Your task to perform on an android device: Open calendar and show me the fourth week of next month Image 0: 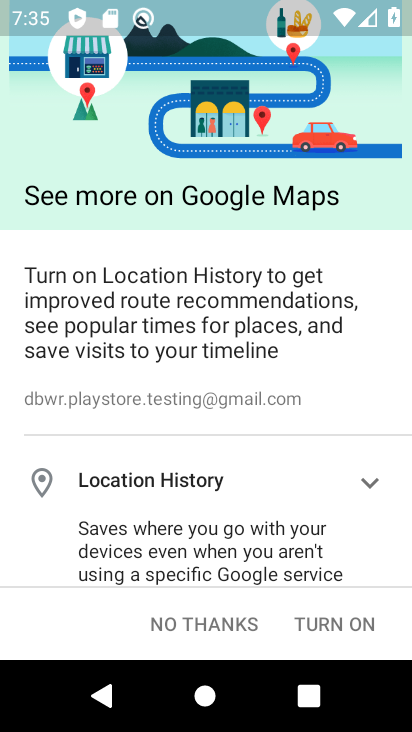
Step 0: press home button
Your task to perform on an android device: Open calendar and show me the fourth week of next month Image 1: 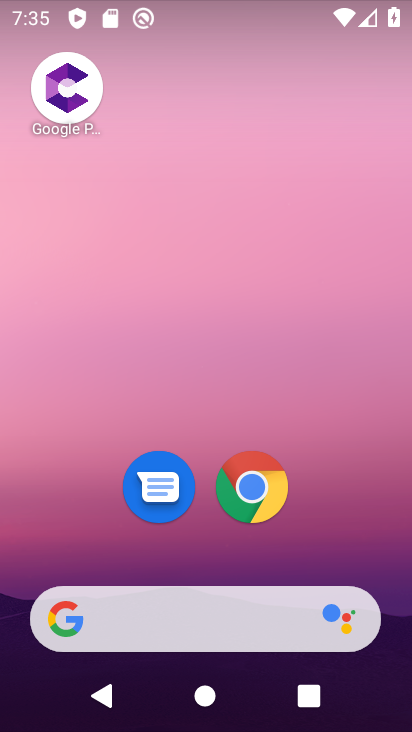
Step 1: drag from (317, 560) to (285, 112)
Your task to perform on an android device: Open calendar and show me the fourth week of next month Image 2: 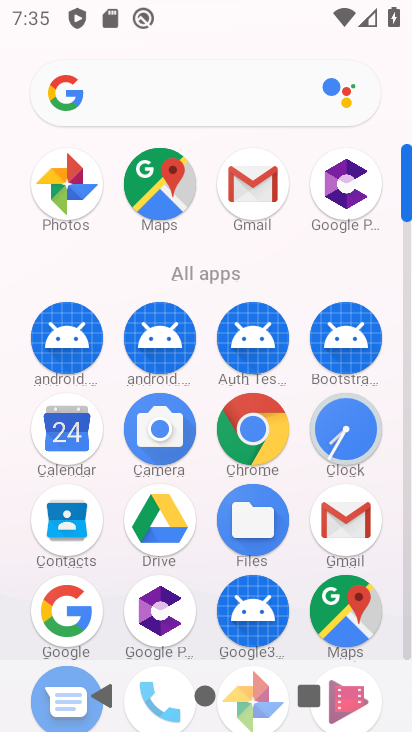
Step 2: click (61, 433)
Your task to perform on an android device: Open calendar and show me the fourth week of next month Image 3: 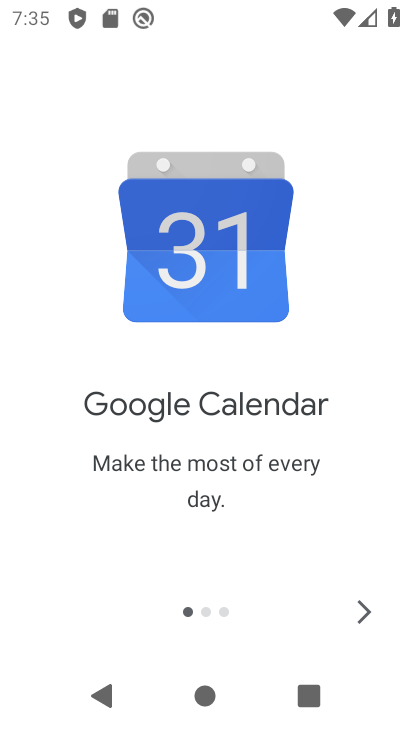
Step 3: click (362, 604)
Your task to perform on an android device: Open calendar and show me the fourth week of next month Image 4: 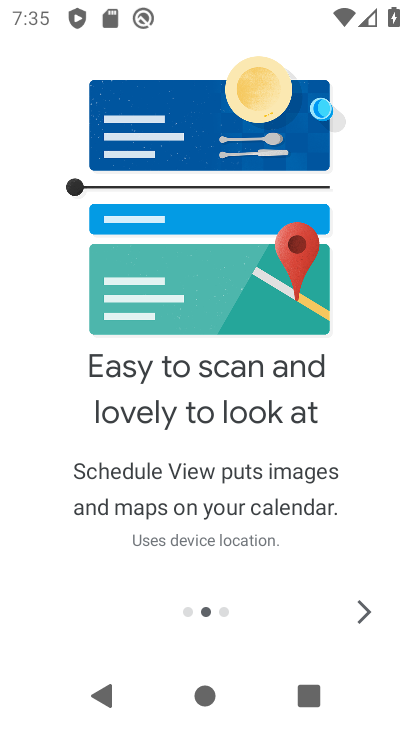
Step 4: click (362, 604)
Your task to perform on an android device: Open calendar and show me the fourth week of next month Image 5: 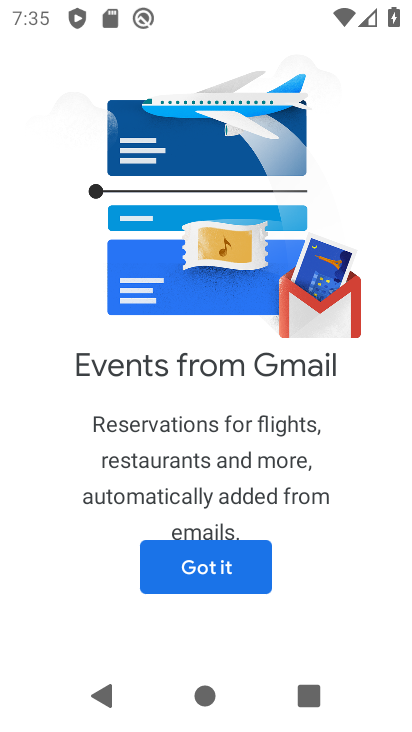
Step 5: click (221, 580)
Your task to perform on an android device: Open calendar and show me the fourth week of next month Image 6: 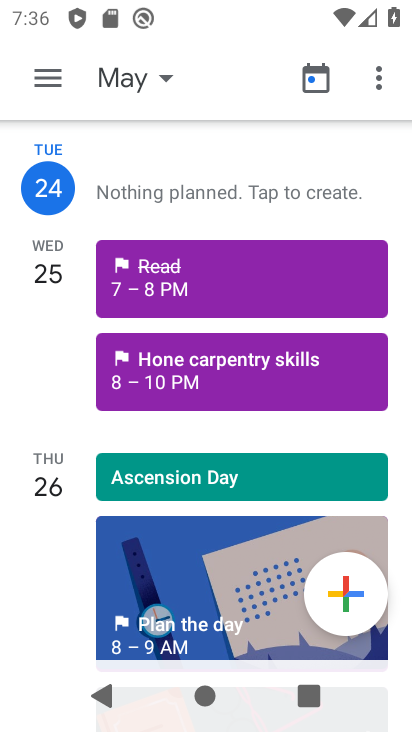
Step 6: click (139, 91)
Your task to perform on an android device: Open calendar and show me the fourth week of next month Image 7: 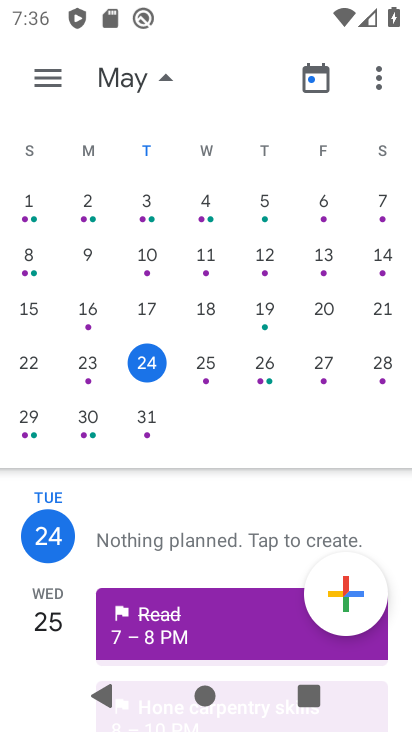
Step 7: drag from (353, 275) to (5, 274)
Your task to perform on an android device: Open calendar and show me the fourth week of next month Image 8: 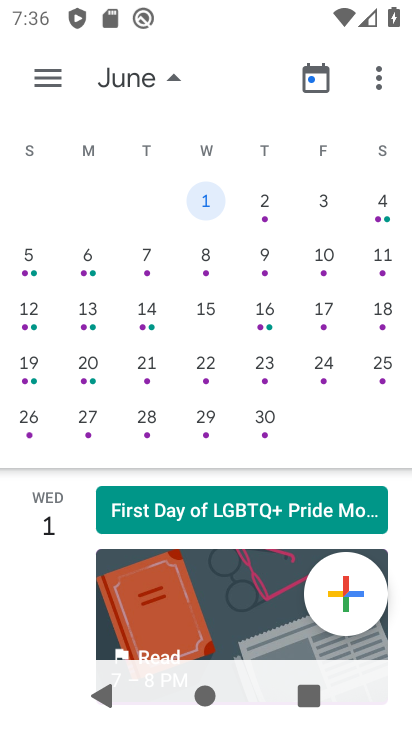
Step 8: click (142, 421)
Your task to perform on an android device: Open calendar and show me the fourth week of next month Image 9: 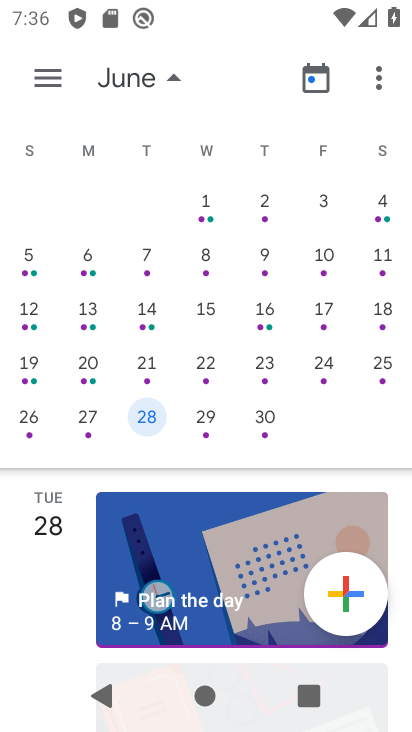
Step 9: task complete